Your task to perform on an android device: turn on the 24-hour format for clock Image 0: 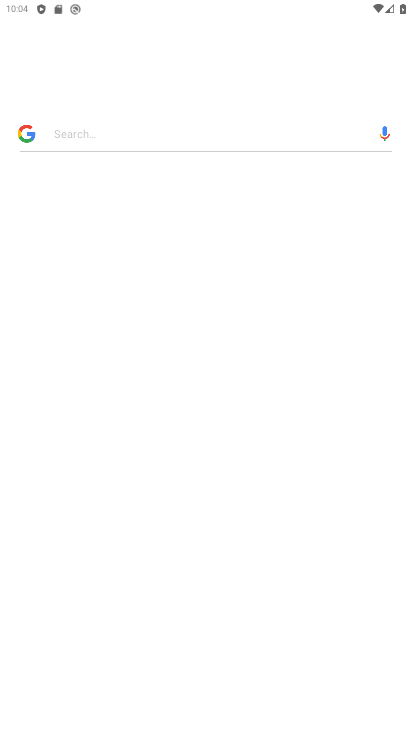
Step 0: drag from (295, 601) to (297, 335)
Your task to perform on an android device: turn on the 24-hour format for clock Image 1: 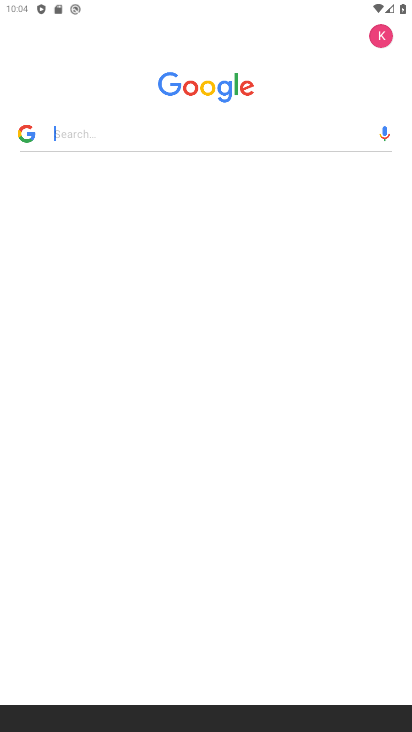
Step 1: press home button
Your task to perform on an android device: turn on the 24-hour format for clock Image 2: 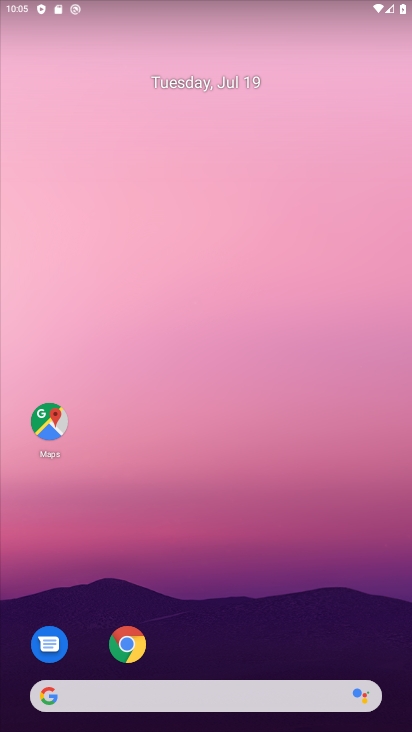
Step 2: drag from (206, 609) to (186, 77)
Your task to perform on an android device: turn on the 24-hour format for clock Image 3: 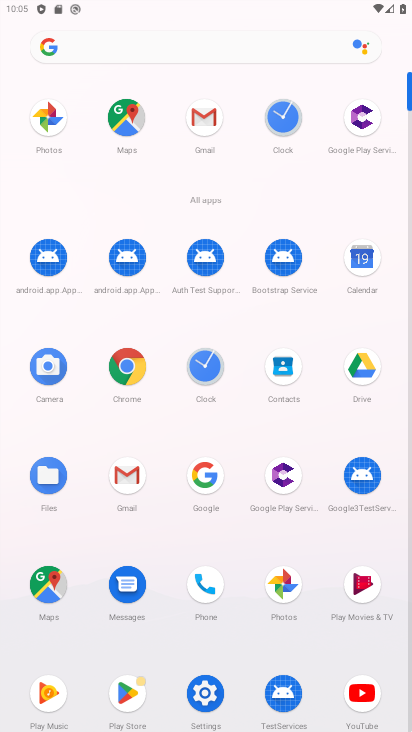
Step 3: click (208, 355)
Your task to perform on an android device: turn on the 24-hour format for clock Image 4: 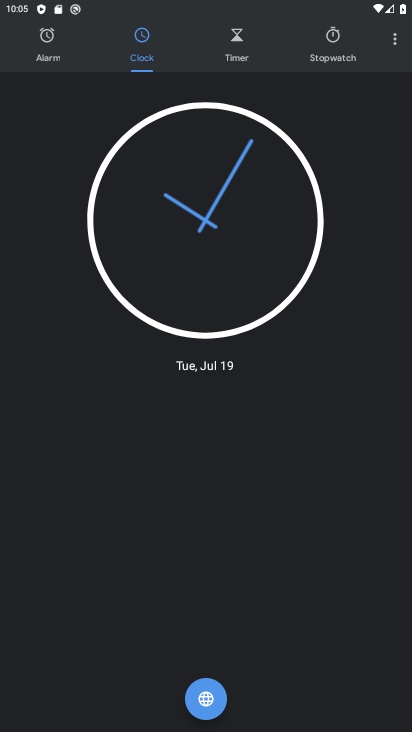
Step 4: click (399, 47)
Your task to perform on an android device: turn on the 24-hour format for clock Image 5: 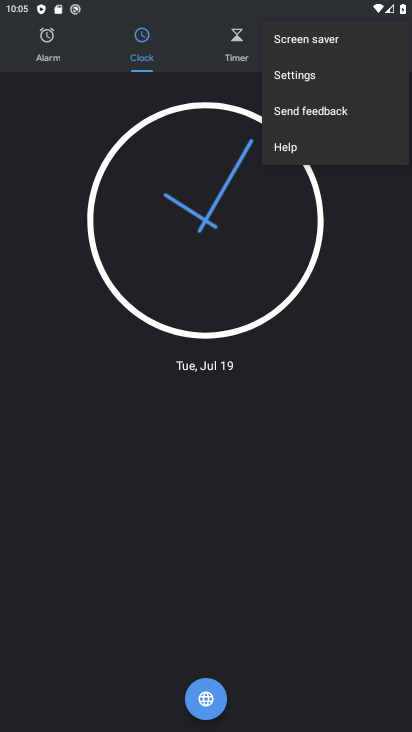
Step 5: click (307, 73)
Your task to perform on an android device: turn on the 24-hour format for clock Image 6: 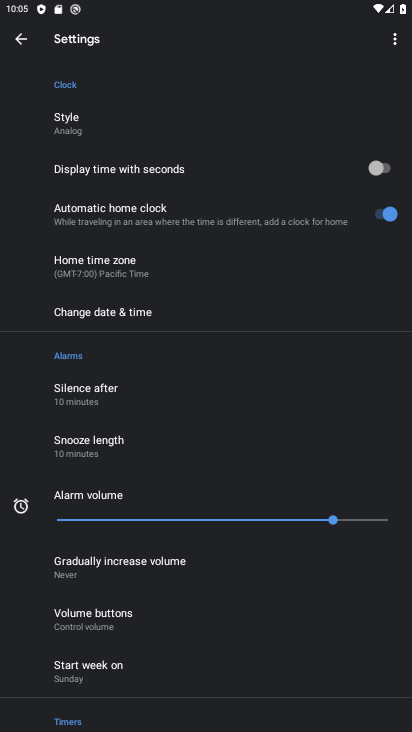
Step 6: click (166, 313)
Your task to perform on an android device: turn on the 24-hour format for clock Image 7: 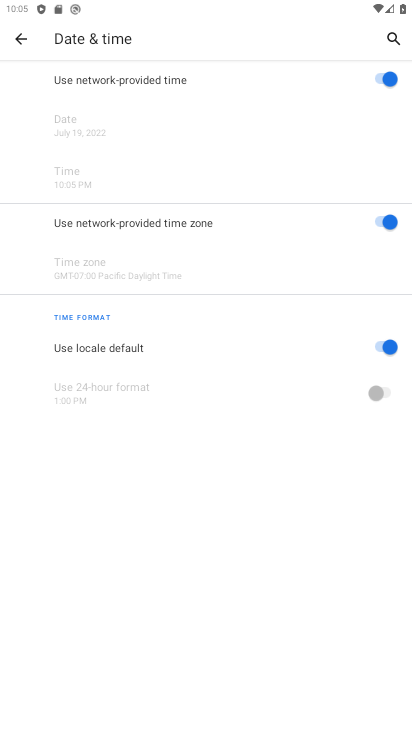
Step 7: click (389, 340)
Your task to perform on an android device: turn on the 24-hour format for clock Image 8: 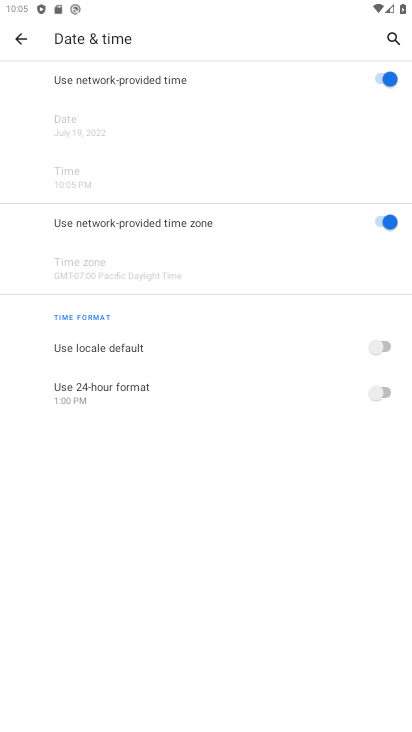
Step 8: click (378, 387)
Your task to perform on an android device: turn on the 24-hour format for clock Image 9: 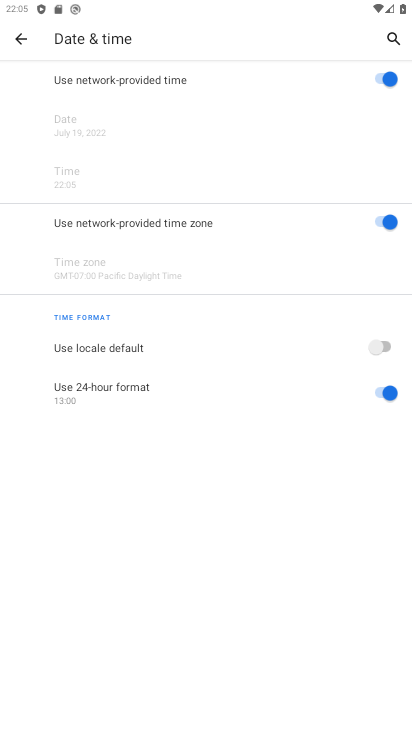
Step 9: task complete